Your task to perform on an android device: change notification settings in the gmail app Image 0: 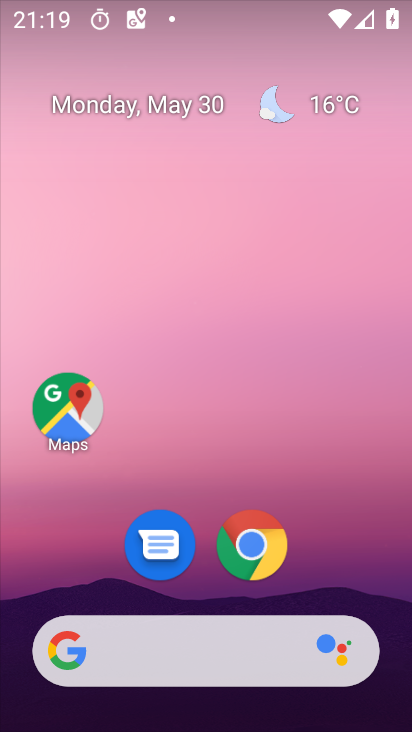
Step 0: drag from (320, 548) to (319, 118)
Your task to perform on an android device: change notification settings in the gmail app Image 1: 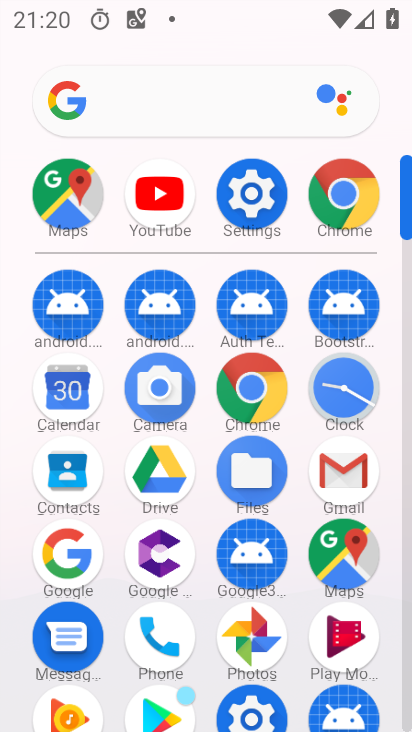
Step 1: click (350, 474)
Your task to perform on an android device: change notification settings in the gmail app Image 2: 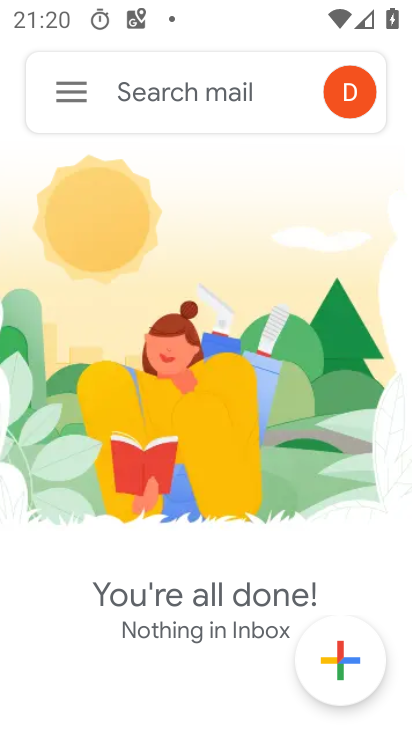
Step 2: click (68, 87)
Your task to perform on an android device: change notification settings in the gmail app Image 3: 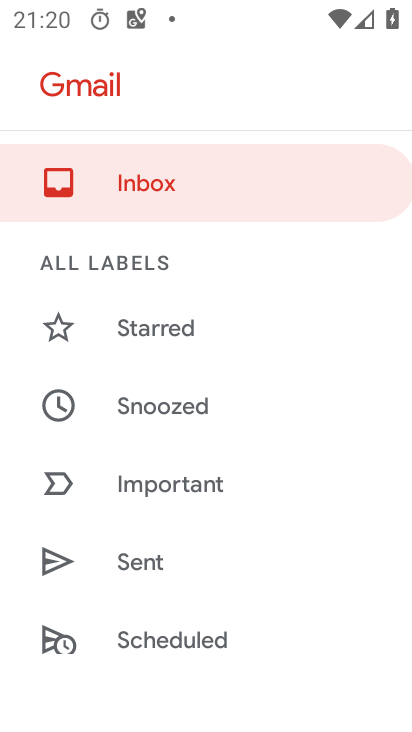
Step 3: drag from (273, 634) to (284, 270)
Your task to perform on an android device: change notification settings in the gmail app Image 4: 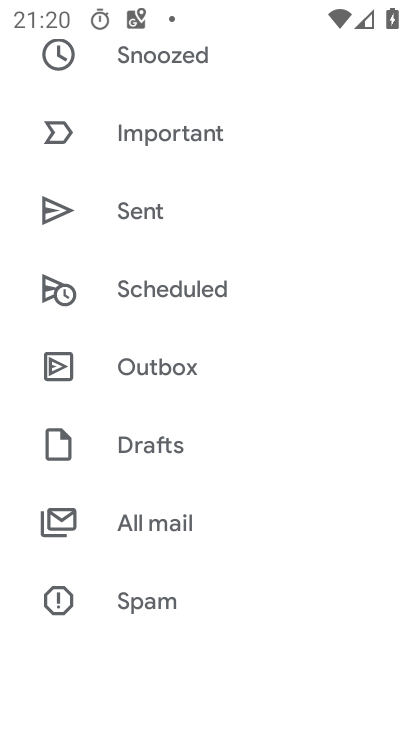
Step 4: drag from (257, 564) to (252, 314)
Your task to perform on an android device: change notification settings in the gmail app Image 5: 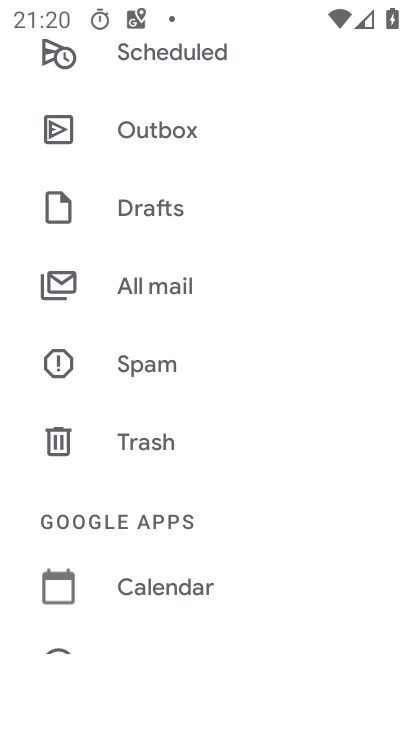
Step 5: drag from (285, 556) to (259, 272)
Your task to perform on an android device: change notification settings in the gmail app Image 6: 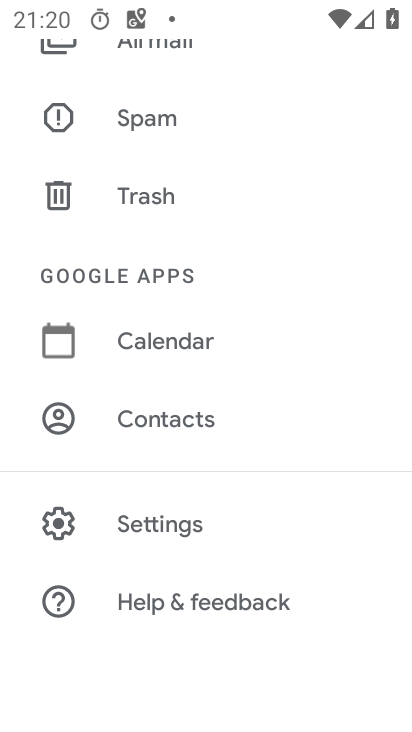
Step 6: click (195, 524)
Your task to perform on an android device: change notification settings in the gmail app Image 7: 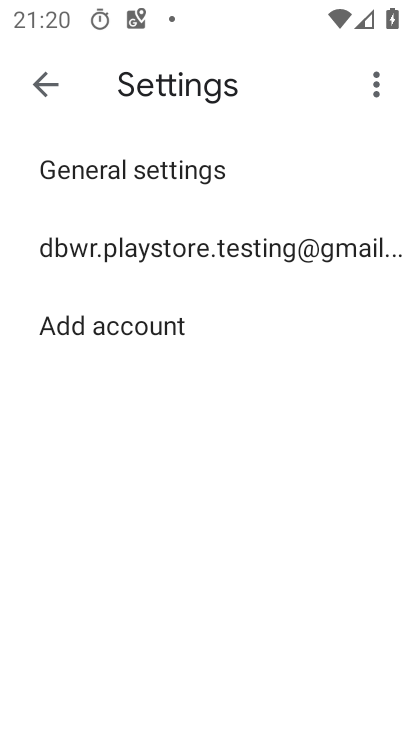
Step 7: click (199, 174)
Your task to perform on an android device: change notification settings in the gmail app Image 8: 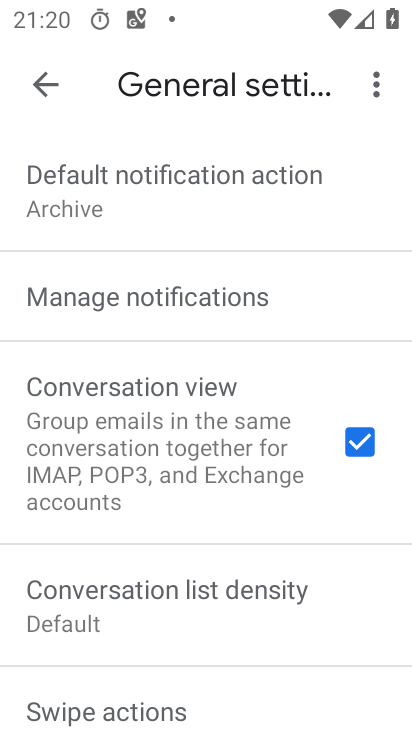
Step 8: click (222, 293)
Your task to perform on an android device: change notification settings in the gmail app Image 9: 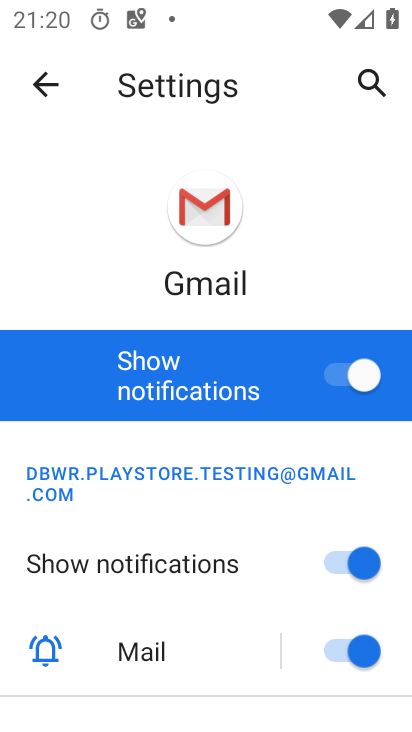
Step 9: click (327, 568)
Your task to perform on an android device: change notification settings in the gmail app Image 10: 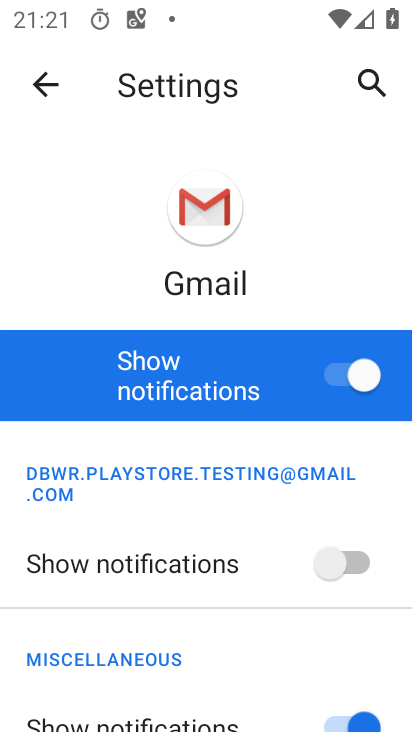
Step 10: task complete